Your task to perform on an android device: toggle pop-ups in chrome Image 0: 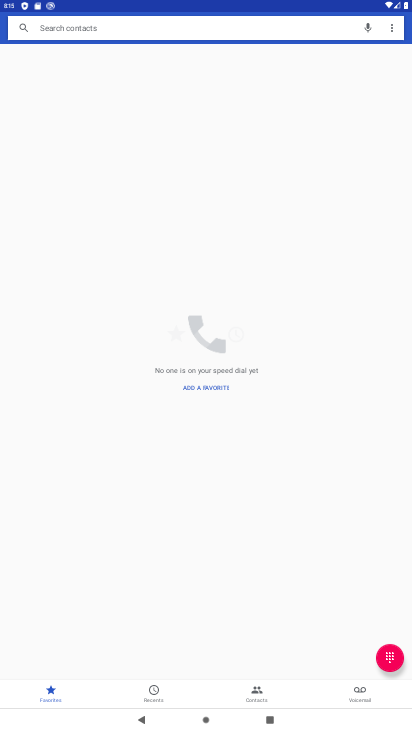
Step 0: press home button
Your task to perform on an android device: toggle pop-ups in chrome Image 1: 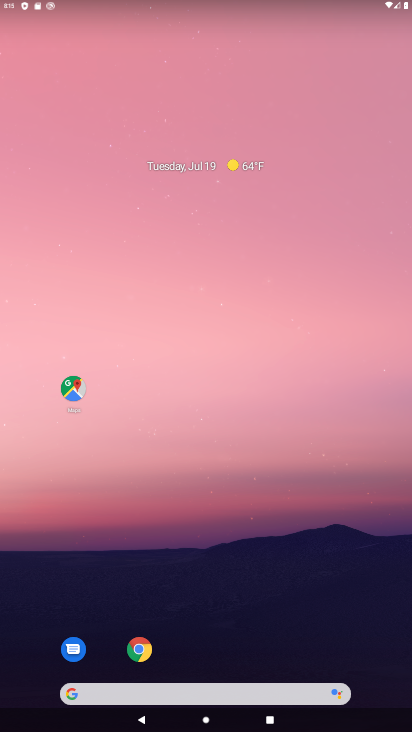
Step 1: click (135, 645)
Your task to perform on an android device: toggle pop-ups in chrome Image 2: 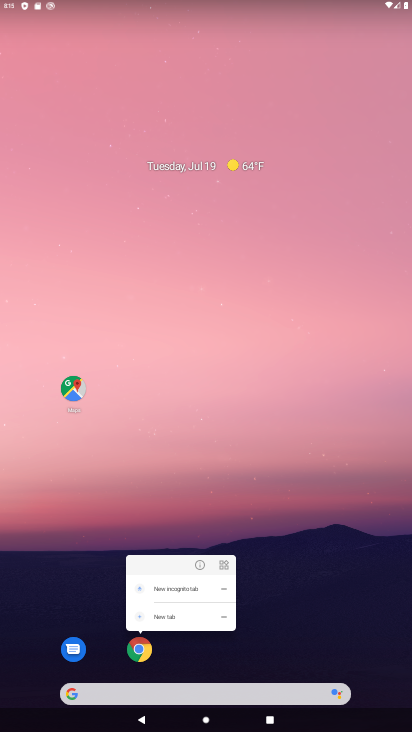
Step 2: click (148, 650)
Your task to perform on an android device: toggle pop-ups in chrome Image 3: 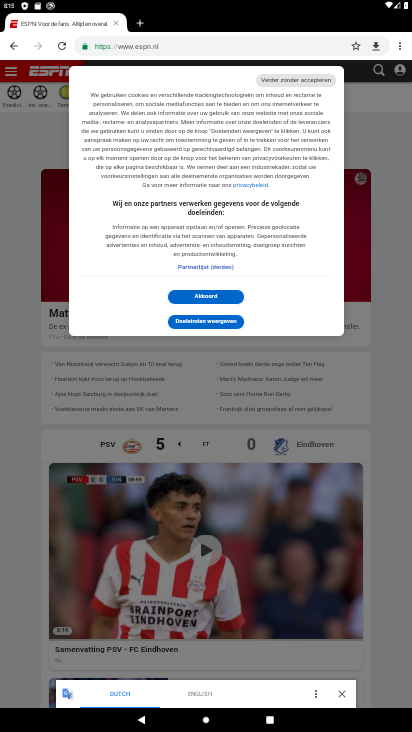
Step 3: click (398, 43)
Your task to perform on an android device: toggle pop-ups in chrome Image 4: 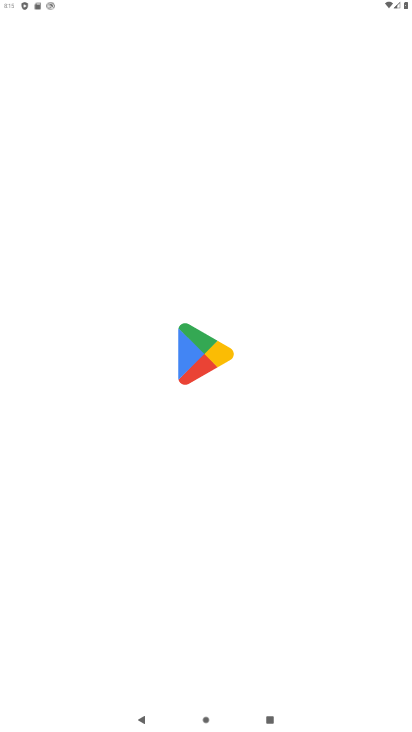
Step 4: click (400, 42)
Your task to perform on an android device: toggle pop-ups in chrome Image 5: 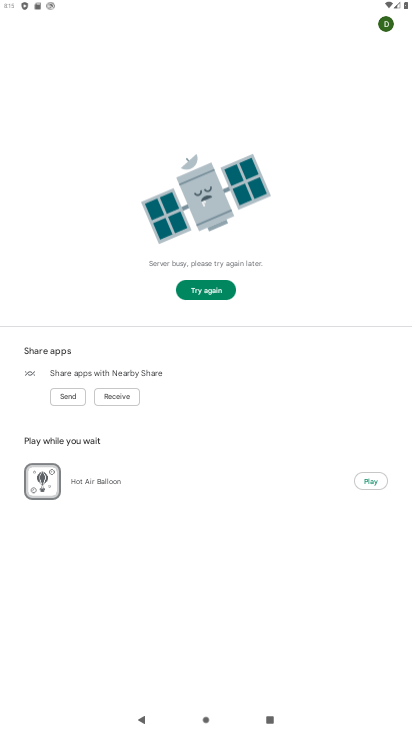
Step 5: press back button
Your task to perform on an android device: toggle pop-ups in chrome Image 6: 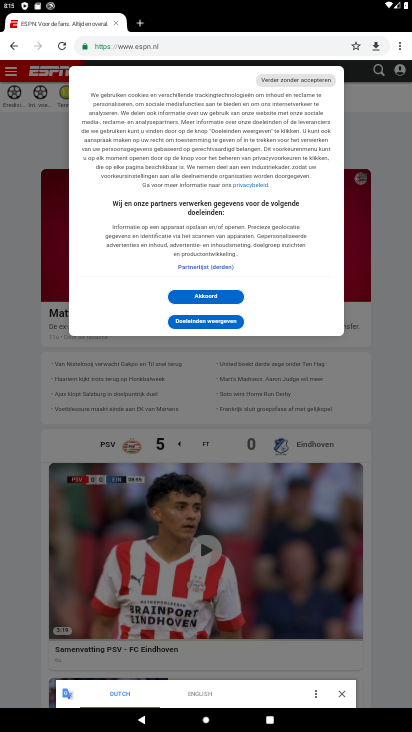
Step 6: click (398, 41)
Your task to perform on an android device: toggle pop-ups in chrome Image 7: 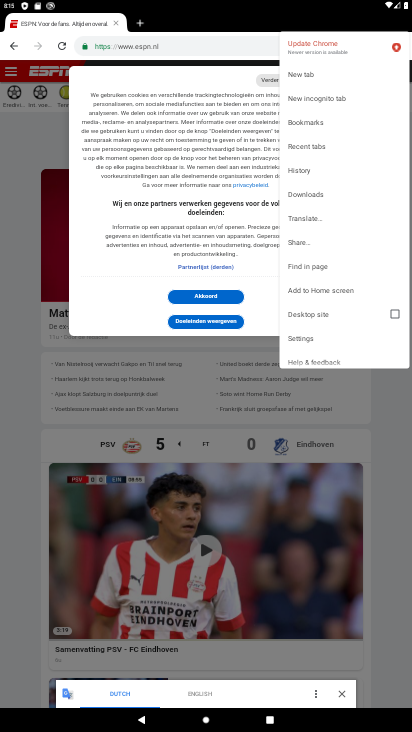
Step 7: click (308, 329)
Your task to perform on an android device: toggle pop-ups in chrome Image 8: 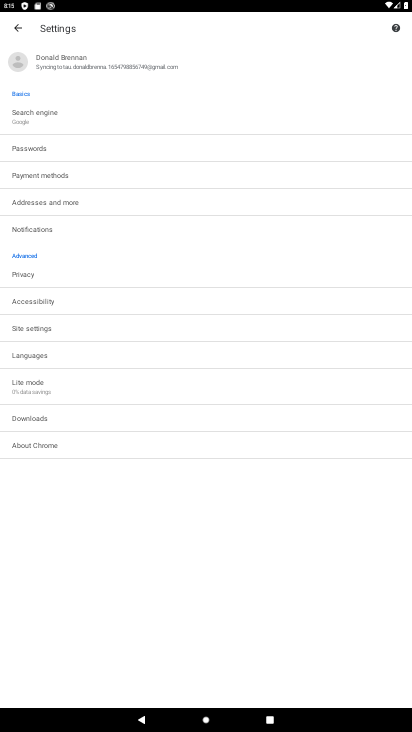
Step 8: click (48, 331)
Your task to perform on an android device: toggle pop-ups in chrome Image 9: 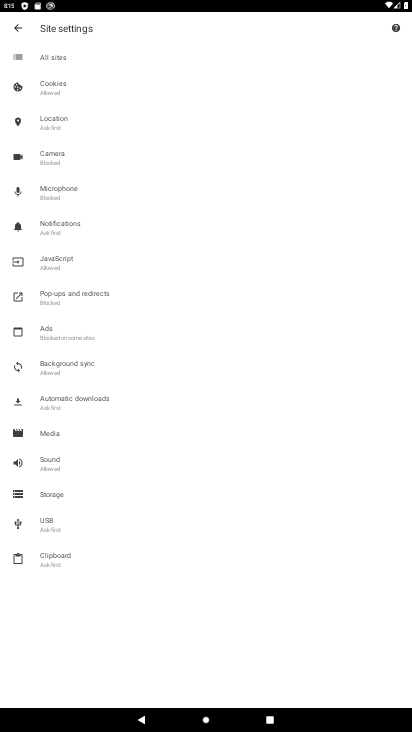
Step 9: click (91, 295)
Your task to perform on an android device: toggle pop-ups in chrome Image 10: 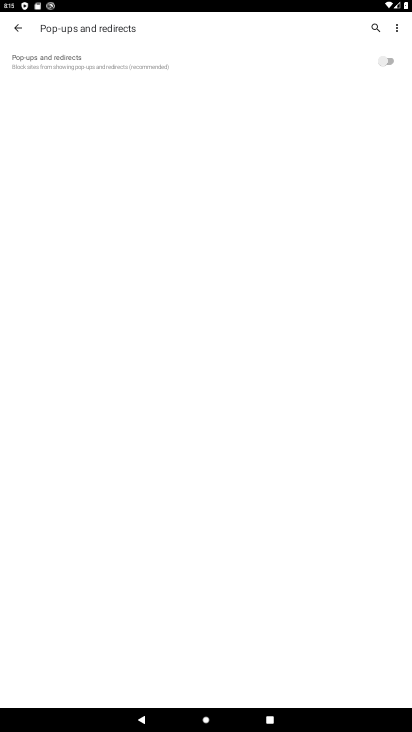
Step 10: click (391, 54)
Your task to perform on an android device: toggle pop-ups in chrome Image 11: 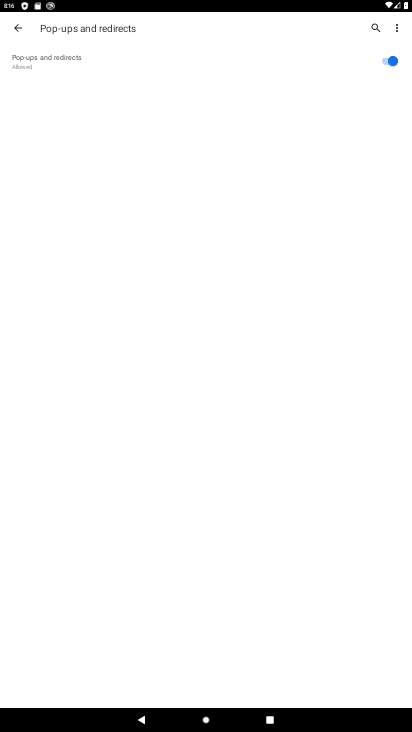
Step 11: task complete